Your task to perform on an android device: turn on data saver in the chrome app Image 0: 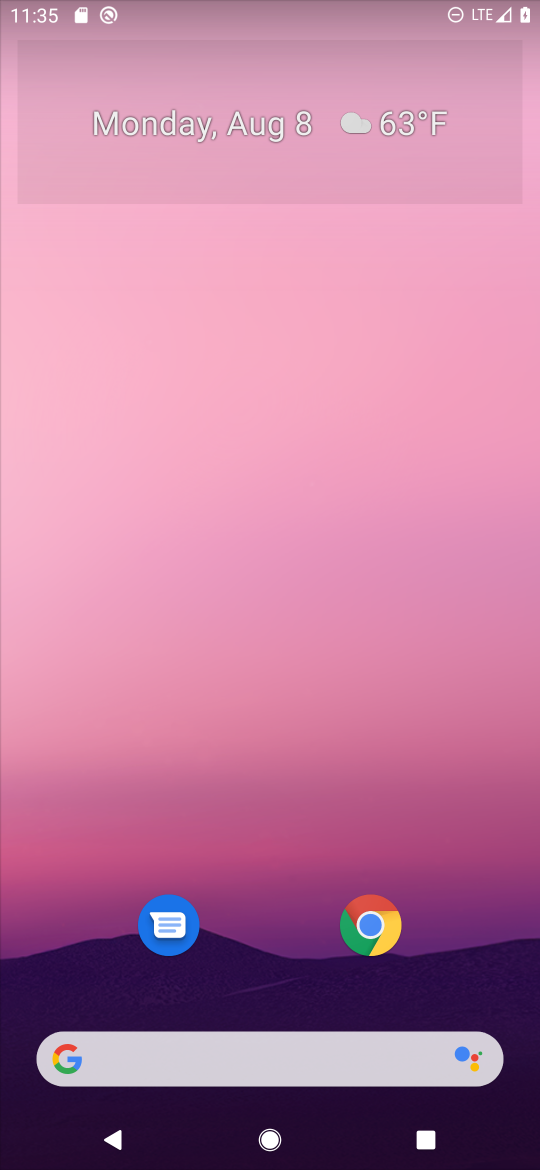
Step 0: drag from (293, 767) to (395, 196)
Your task to perform on an android device: turn on data saver in the chrome app Image 1: 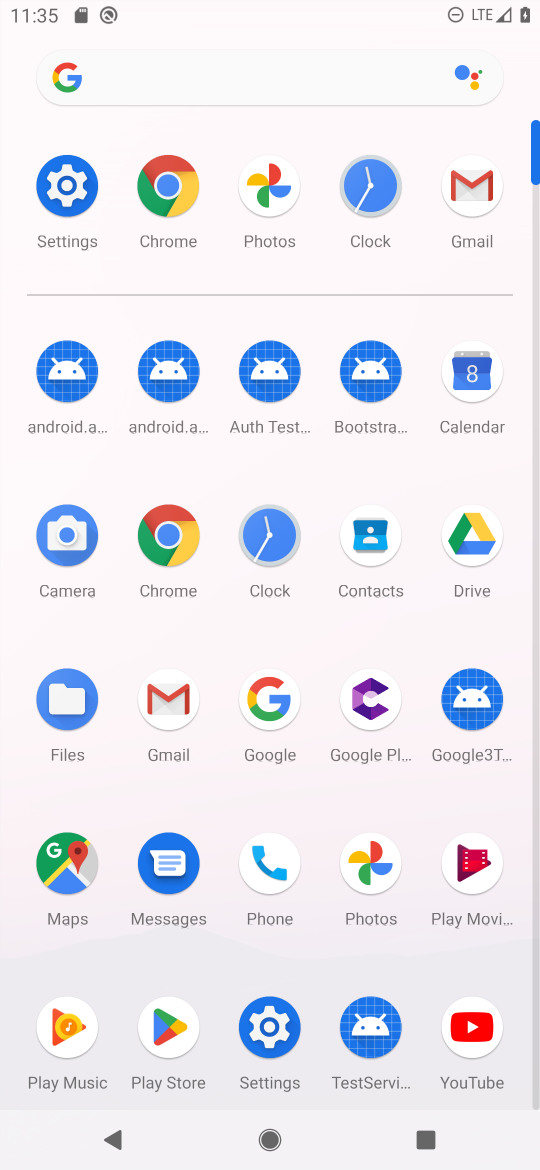
Step 1: click (174, 535)
Your task to perform on an android device: turn on data saver in the chrome app Image 2: 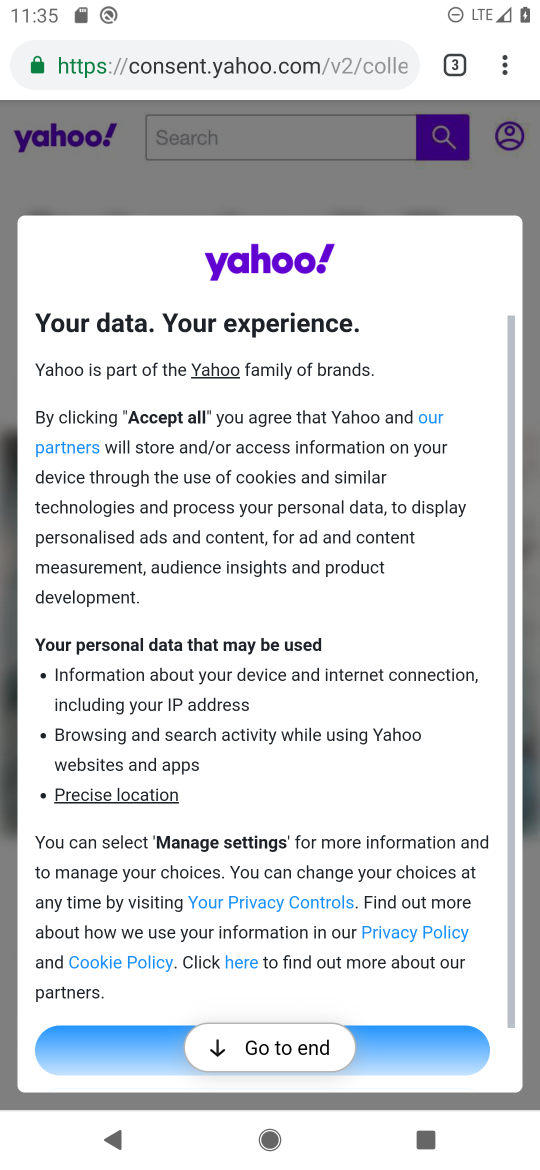
Step 2: drag from (492, 62) to (288, 858)
Your task to perform on an android device: turn on data saver in the chrome app Image 3: 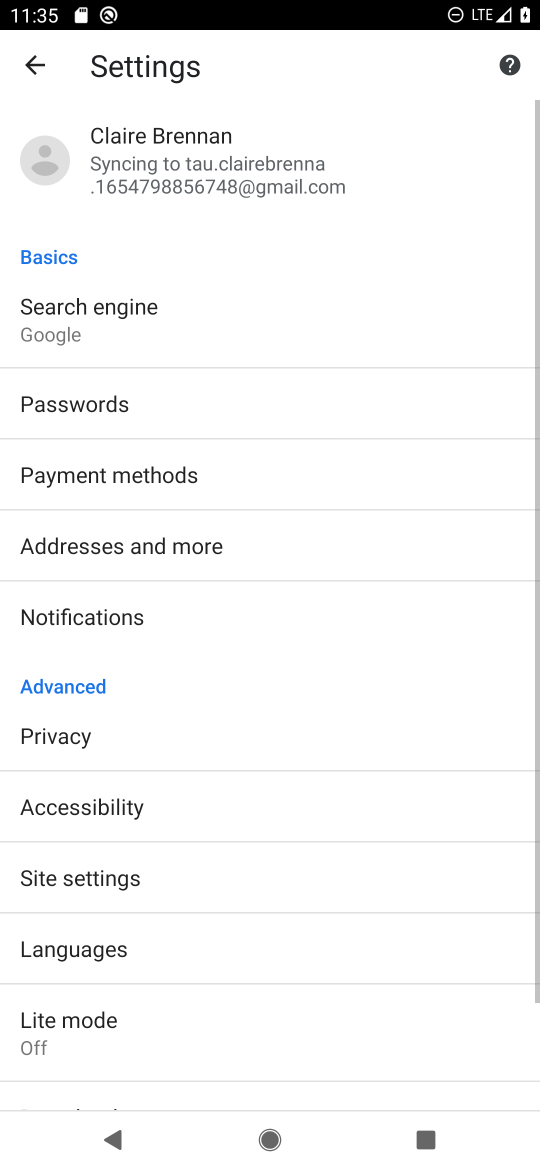
Step 3: drag from (222, 1010) to (296, 367)
Your task to perform on an android device: turn on data saver in the chrome app Image 4: 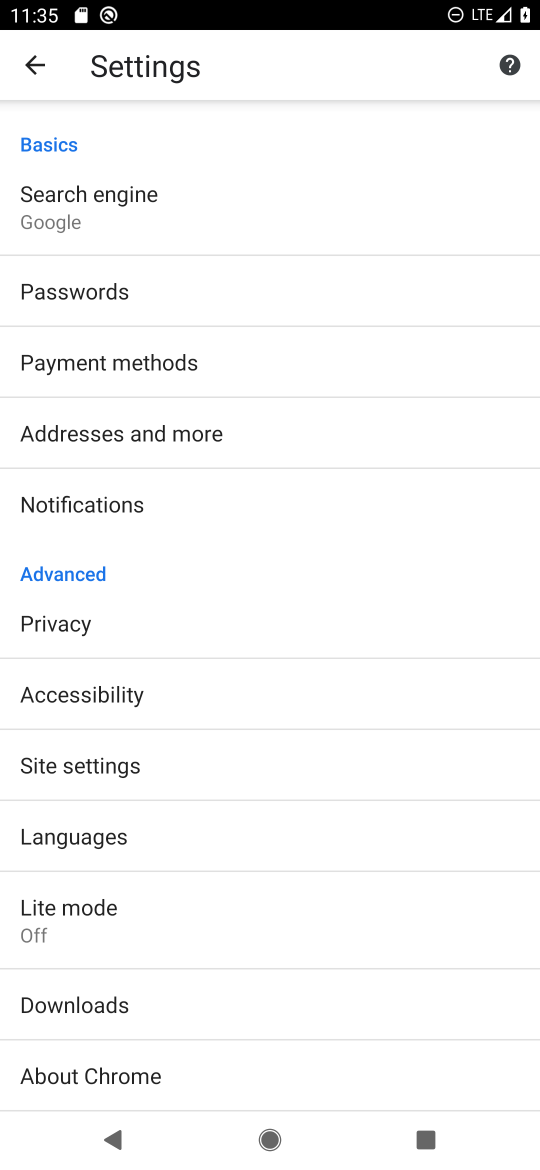
Step 4: click (131, 910)
Your task to perform on an android device: turn on data saver in the chrome app Image 5: 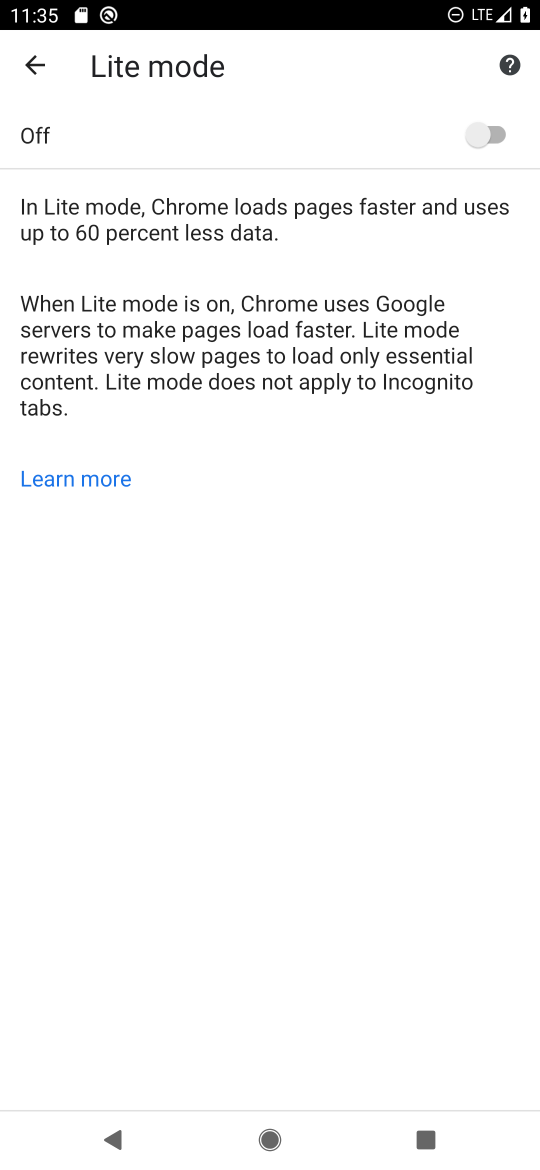
Step 5: click (497, 129)
Your task to perform on an android device: turn on data saver in the chrome app Image 6: 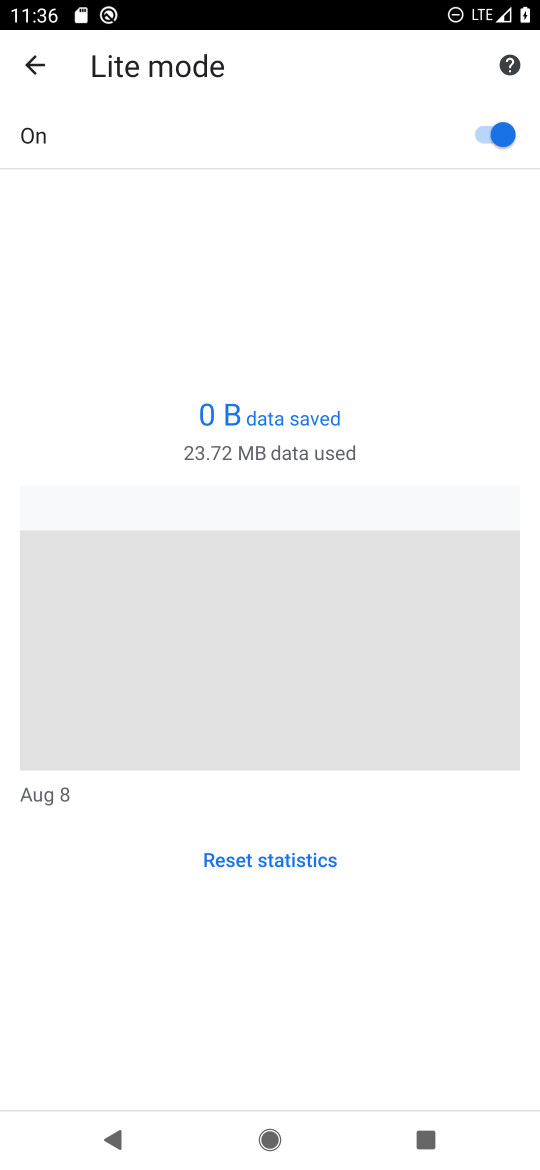
Step 6: task complete